Your task to perform on an android device: Is it going to rain this weekend? Image 0: 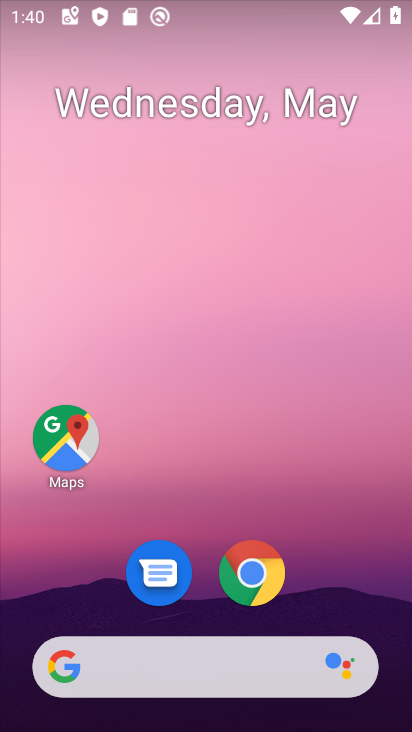
Step 0: click (165, 663)
Your task to perform on an android device: Is it going to rain this weekend? Image 1: 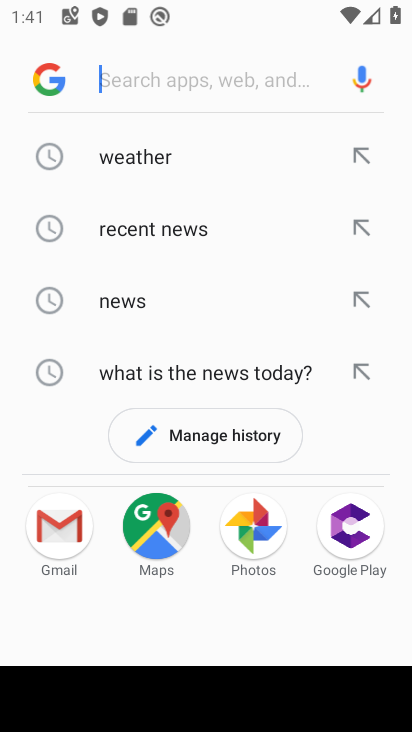
Step 1: type "is it going to rain this weekend"
Your task to perform on an android device: Is it going to rain this weekend? Image 2: 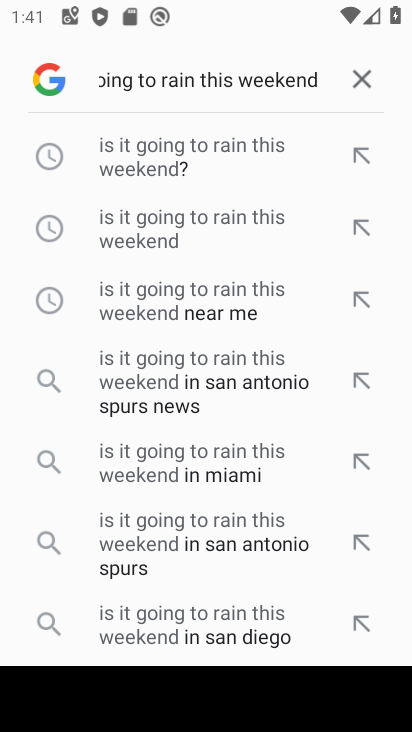
Step 2: click (209, 145)
Your task to perform on an android device: Is it going to rain this weekend? Image 3: 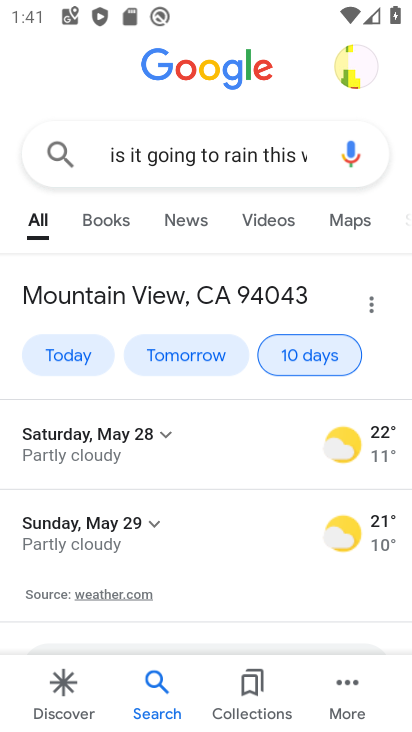
Step 3: task complete